Your task to perform on an android device: Open the calendar and show me this week's events? Image 0: 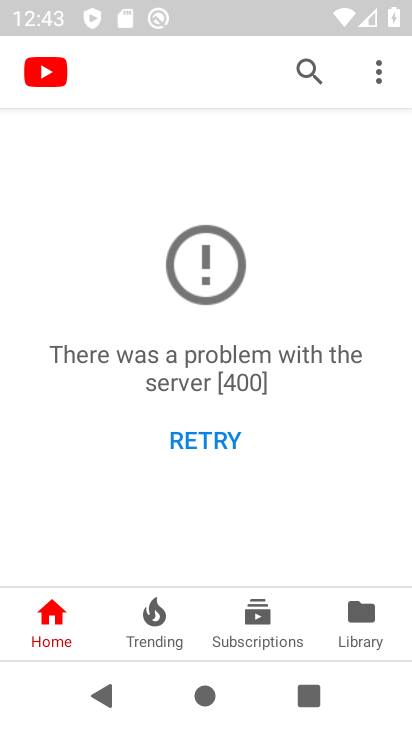
Step 0: press home button
Your task to perform on an android device: Open the calendar and show me this week's events? Image 1: 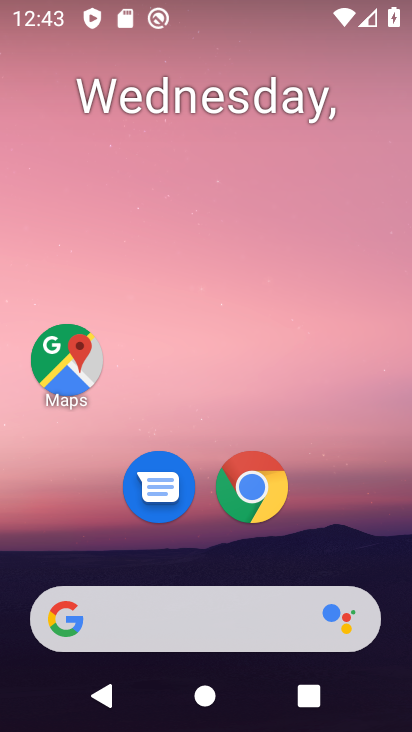
Step 1: drag from (371, 529) to (364, 275)
Your task to perform on an android device: Open the calendar and show me this week's events? Image 2: 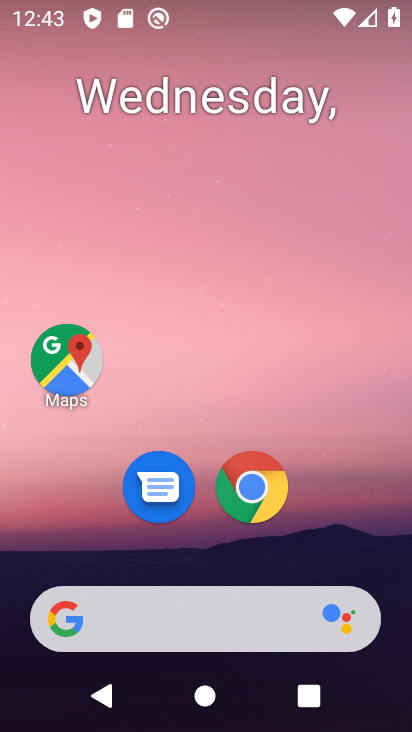
Step 2: drag from (349, 545) to (368, 58)
Your task to perform on an android device: Open the calendar and show me this week's events? Image 3: 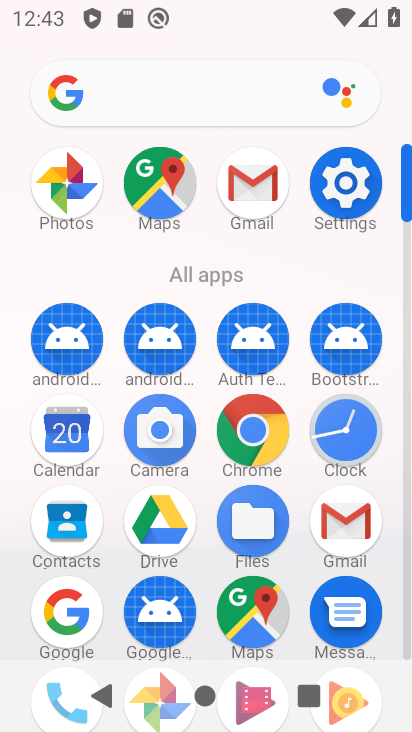
Step 3: click (58, 447)
Your task to perform on an android device: Open the calendar and show me this week's events? Image 4: 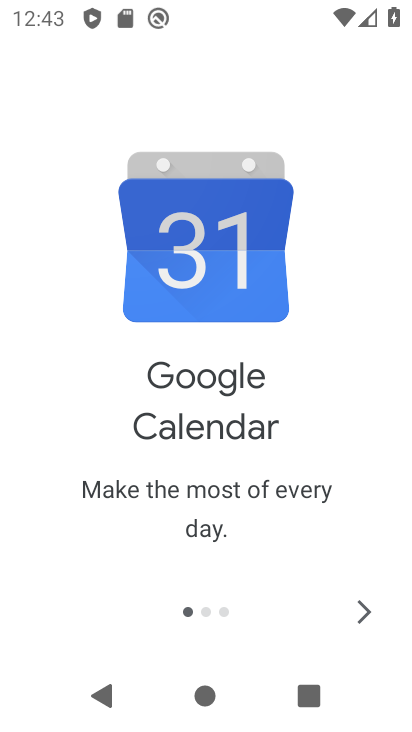
Step 4: click (346, 617)
Your task to perform on an android device: Open the calendar and show me this week's events? Image 5: 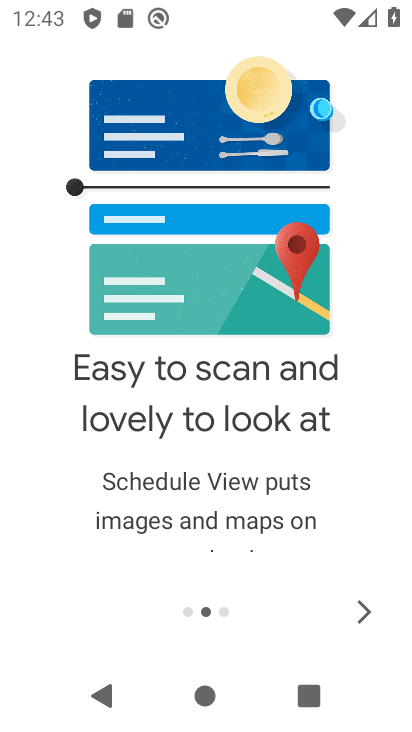
Step 5: click (343, 614)
Your task to perform on an android device: Open the calendar and show me this week's events? Image 6: 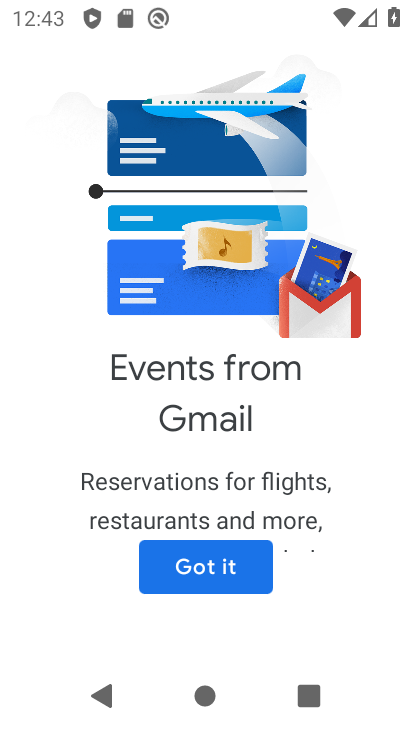
Step 6: click (228, 583)
Your task to perform on an android device: Open the calendar and show me this week's events? Image 7: 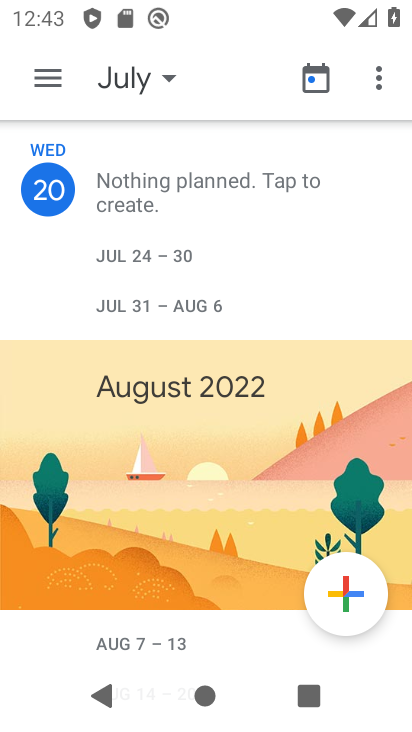
Step 7: task complete